Your task to perform on an android device: delete the emails in spam in the gmail app Image 0: 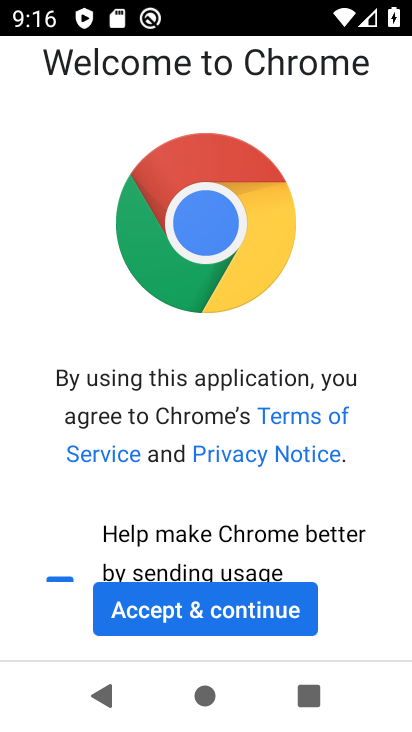
Step 0: press home button
Your task to perform on an android device: delete the emails in spam in the gmail app Image 1: 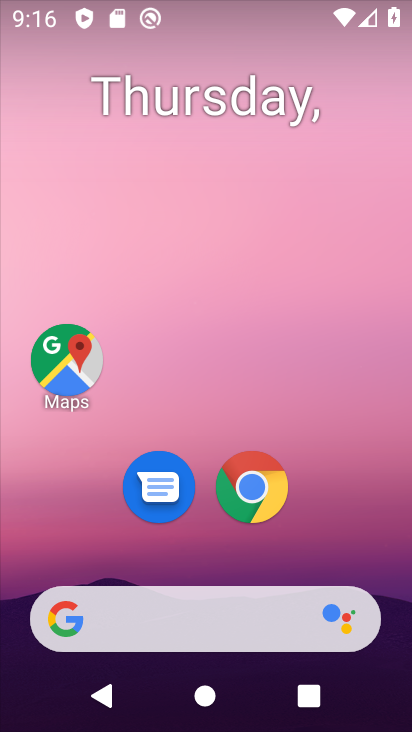
Step 1: drag from (314, 529) to (169, 209)
Your task to perform on an android device: delete the emails in spam in the gmail app Image 2: 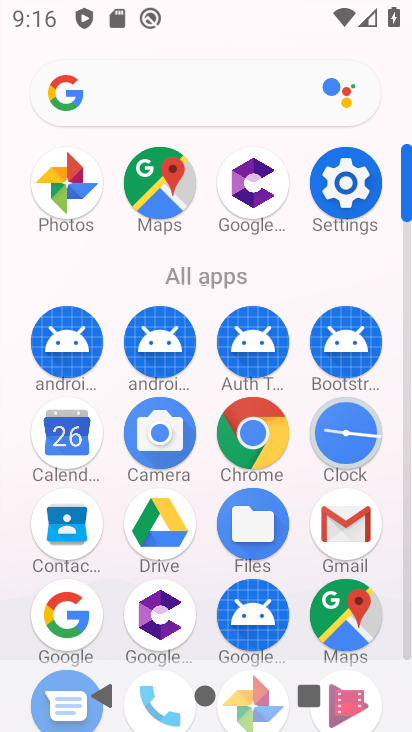
Step 2: click (345, 543)
Your task to perform on an android device: delete the emails in spam in the gmail app Image 3: 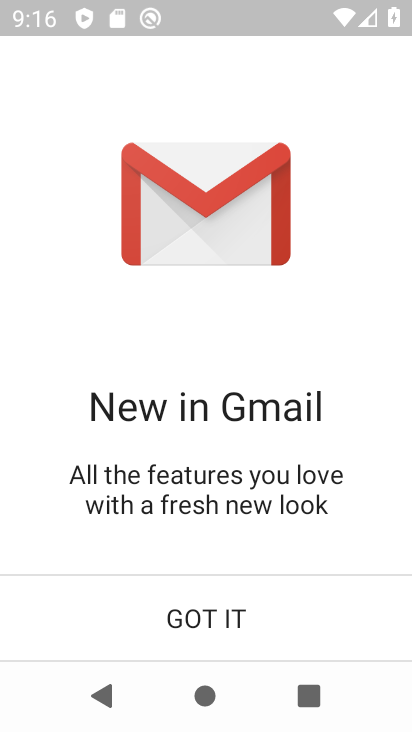
Step 3: click (195, 624)
Your task to perform on an android device: delete the emails in spam in the gmail app Image 4: 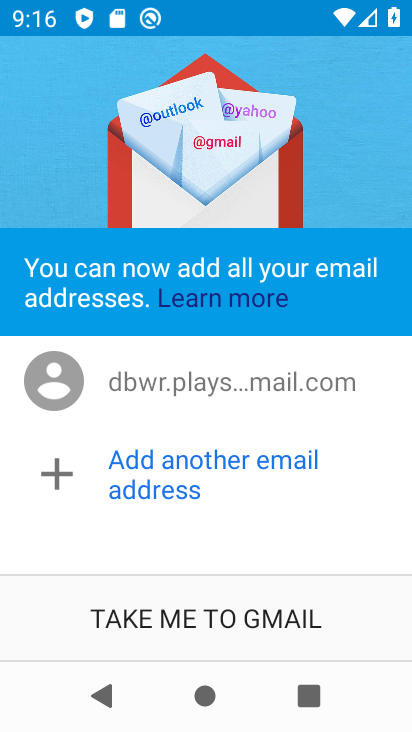
Step 4: click (208, 619)
Your task to perform on an android device: delete the emails in spam in the gmail app Image 5: 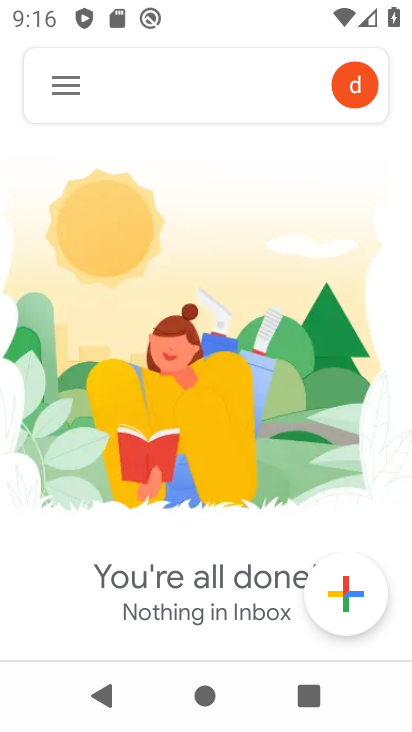
Step 5: click (62, 89)
Your task to perform on an android device: delete the emails in spam in the gmail app Image 6: 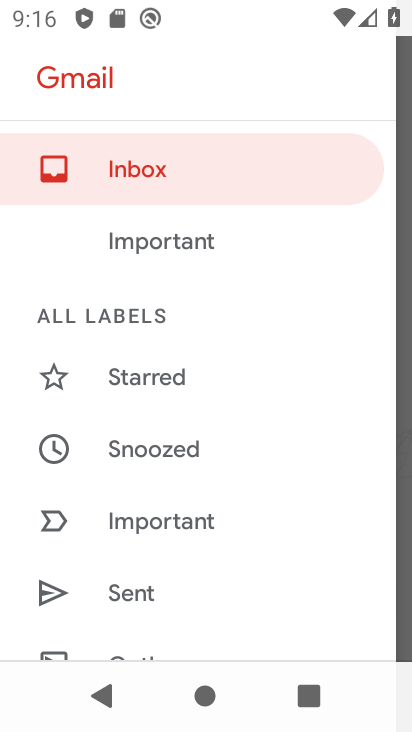
Step 6: drag from (153, 643) to (170, 266)
Your task to perform on an android device: delete the emails in spam in the gmail app Image 7: 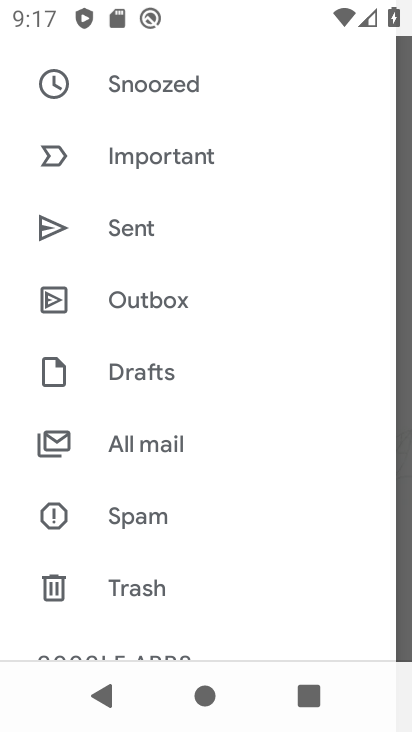
Step 7: click (145, 522)
Your task to perform on an android device: delete the emails in spam in the gmail app Image 8: 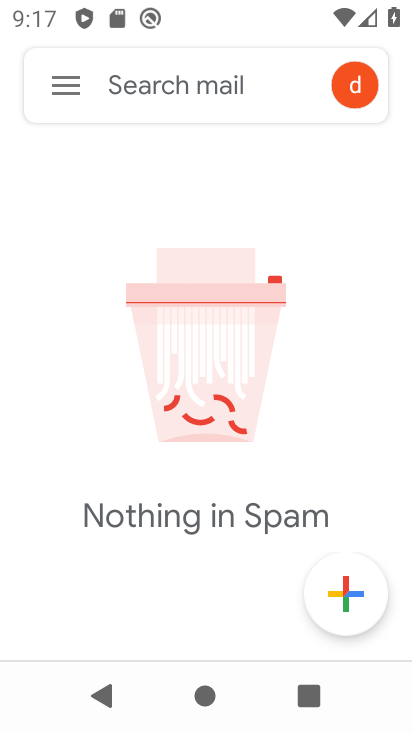
Step 8: task complete